Your task to perform on an android device: clear history in the chrome app Image 0: 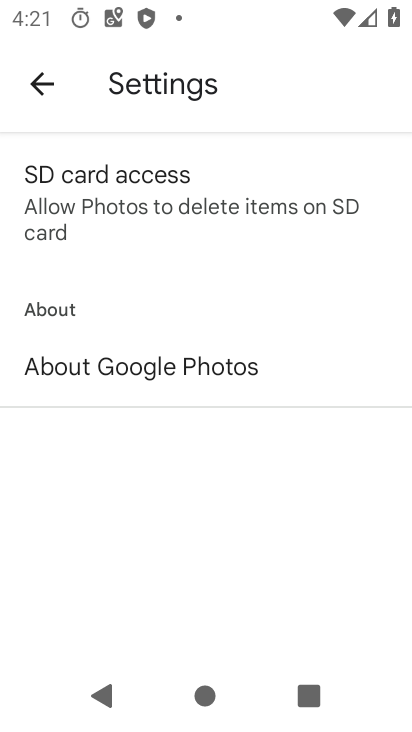
Step 0: press home button
Your task to perform on an android device: clear history in the chrome app Image 1: 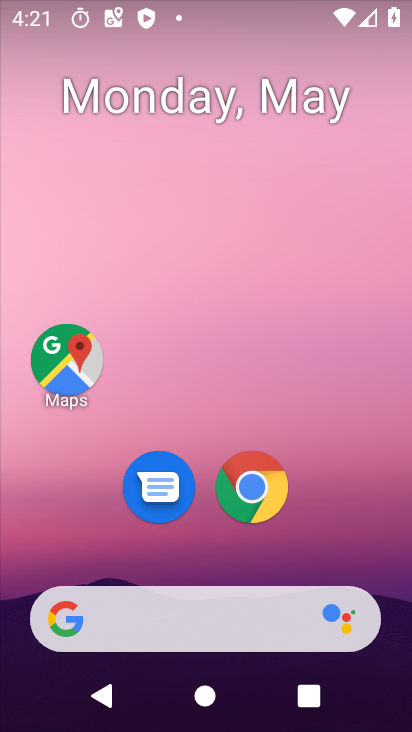
Step 1: click (263, 486)
Your task to perform on an android device: clear history in the chrome app Image 2: 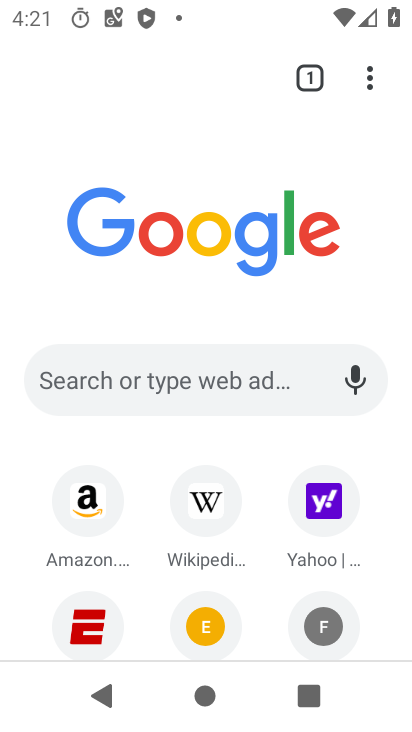
Step 2: click (374, 82)
Your task to perform on an android device: clear history in the chrome app Image 3: 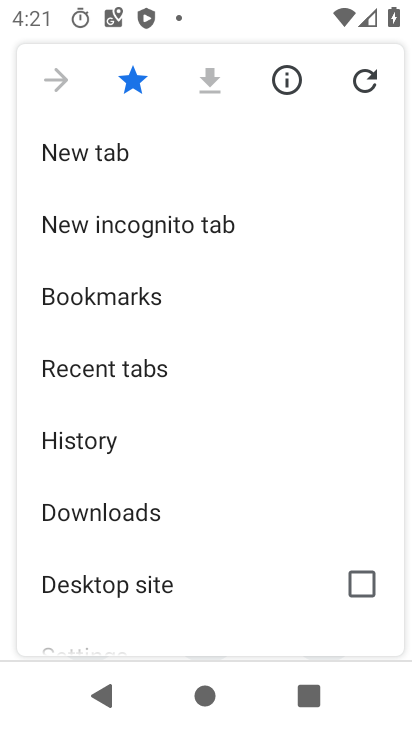
Step 3: click (115, 437)
Your task to perform on an android device: clear history in the chrome app Image 4: 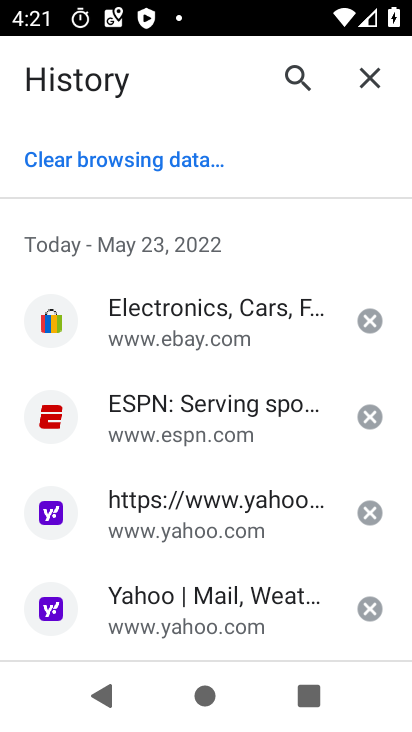
Step 4: click (115, 161)
Your task to perform on an android device: clear history in the chrome app Image 5: 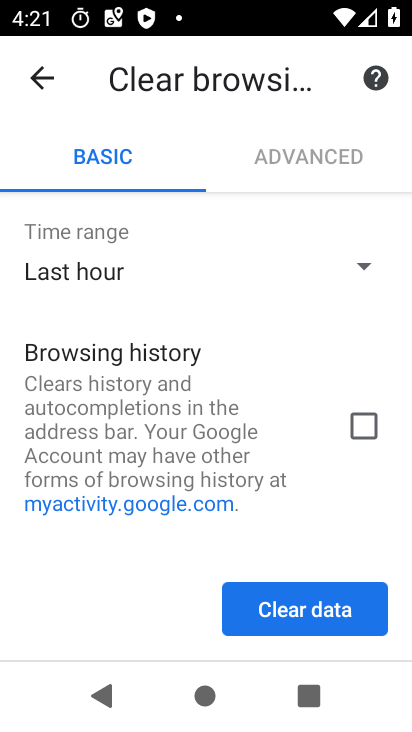
Step 5: click (364, 420)
Your task to perform on an android device: clear history in the chrome app Image 6: 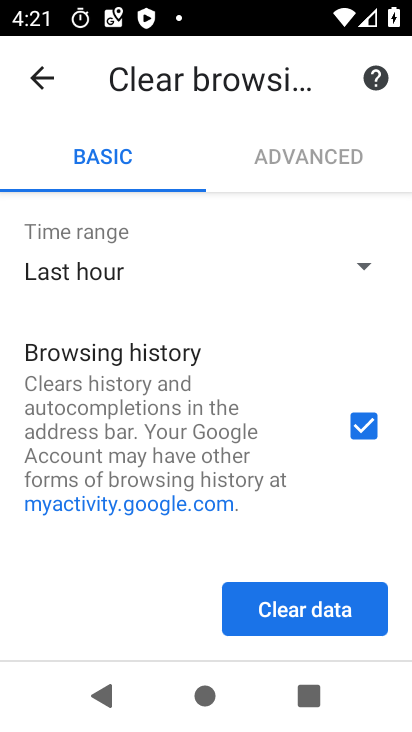
Step 6: drag from (304, 511) to (274, 160)
Your task to perform on an android device: clear history in the chrome app Image 7: 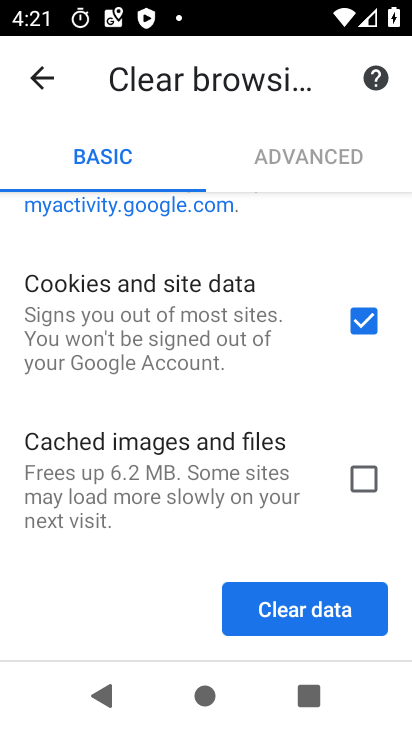
Step 7: drag from (284, 296) to (274, 206)
Your task to perform on an android device: clear history in the chrome app Image 8: 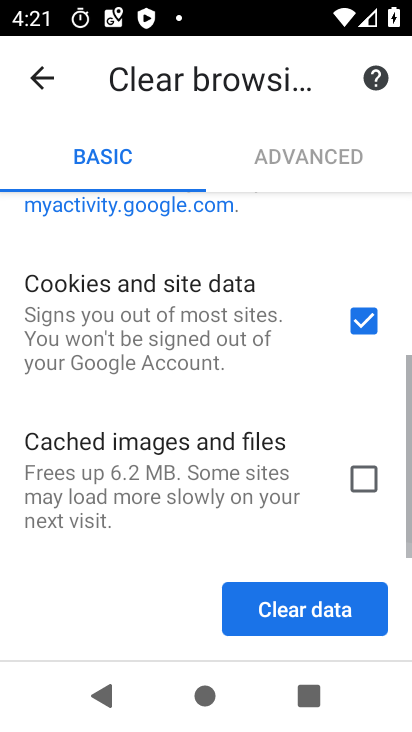
Step 8: click (358, 476)
Your task to perform on an android device: clear history in the chrome app Image 9: 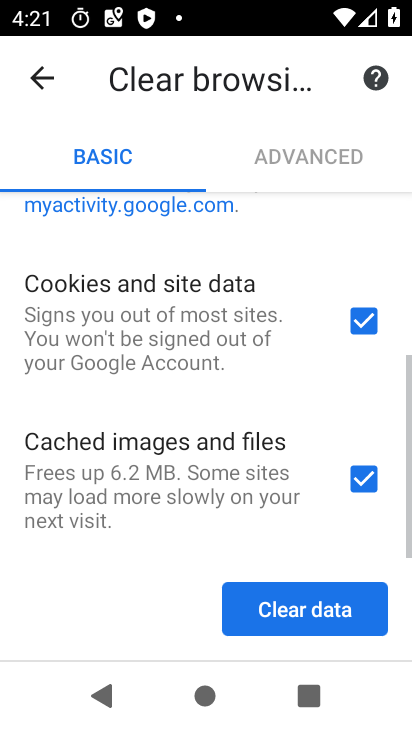
Step 9: drag from (130, 576) to (135, 209)
Your task to perform on an android device: clear history in the chrome app Image 10: 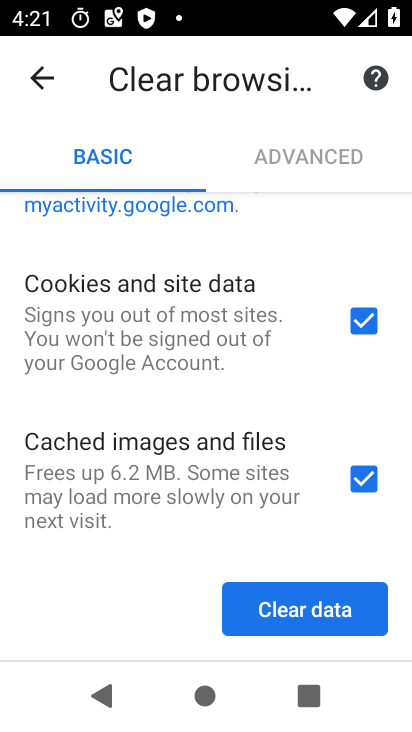
Step 10: drag from (157, 561) to (161, 227)
Your task to perform on an android device: clear history in the chrome app Image 11: 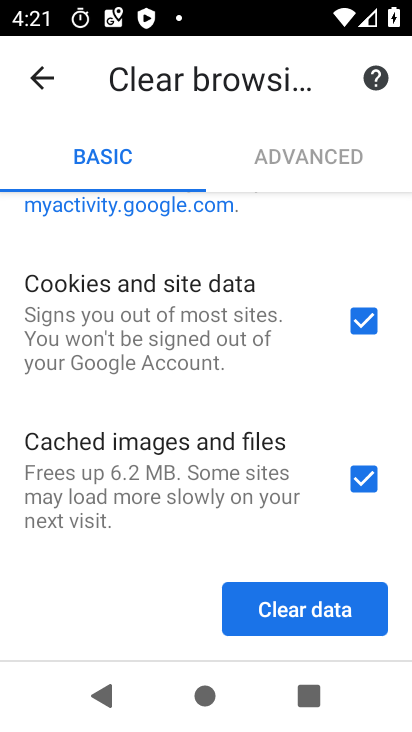
Step 11: drag from (385, 530) to (376, 192)
Your task to perform on an android device: clear history in the chrome app Image 12: 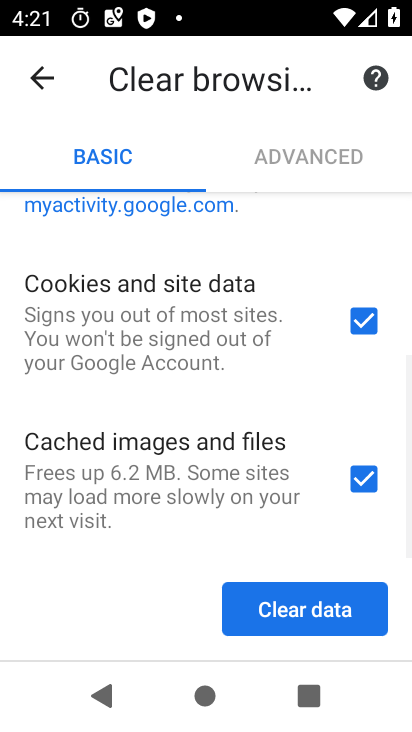
Step 12: drag from (388, 468) to (390, 234)
Your task to perform on an android device: clear history in the chrome app Image 13: 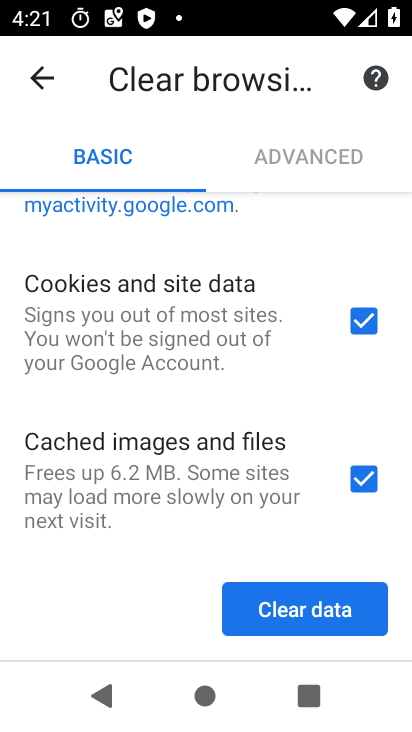
Step 13: click (330, 597)
Your task to perform on an android device: clear history in the chrome app Image 14: 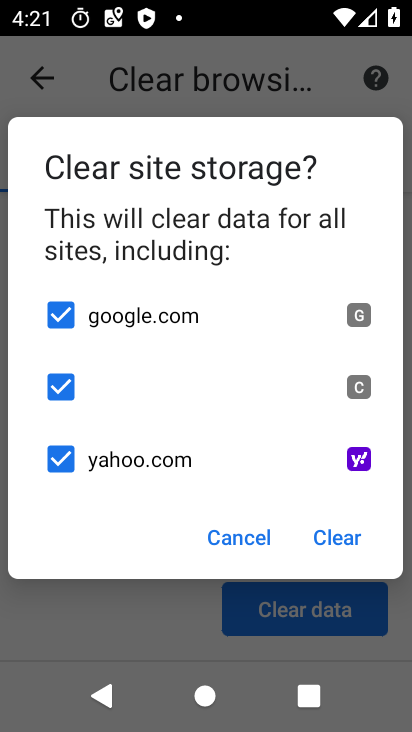
Step 14: click (326, 538)
Your task to perform on an android device: clear history in the chrome app Image 15: 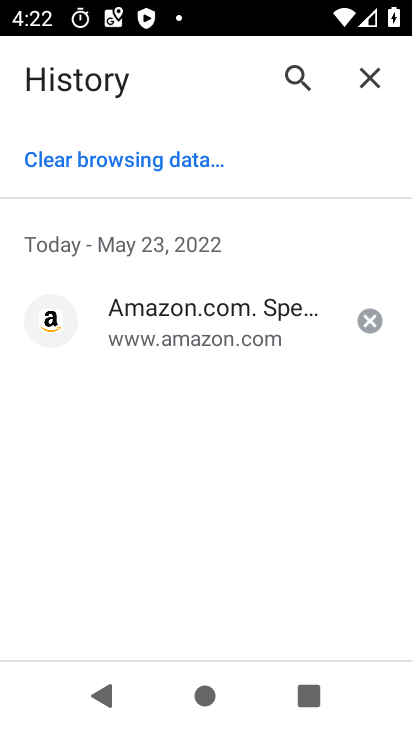
Step 15: task complete